Your task to perform on an android device: change text size in settings app Image 0: 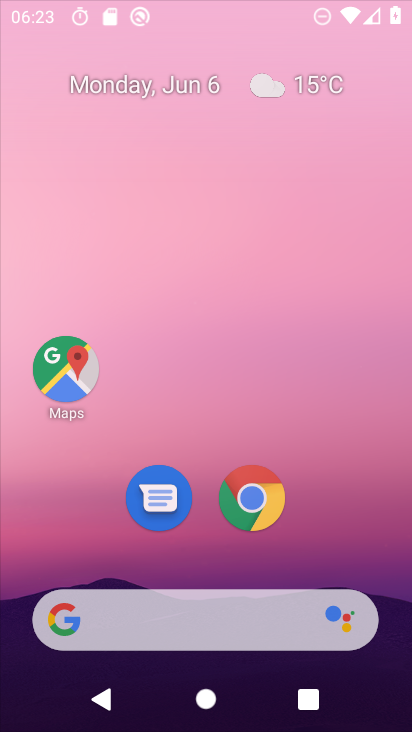
Step 0: drag from (190, 580) to (189, 2)
Your task to perform on an android device: change text size in settings app Image 1: 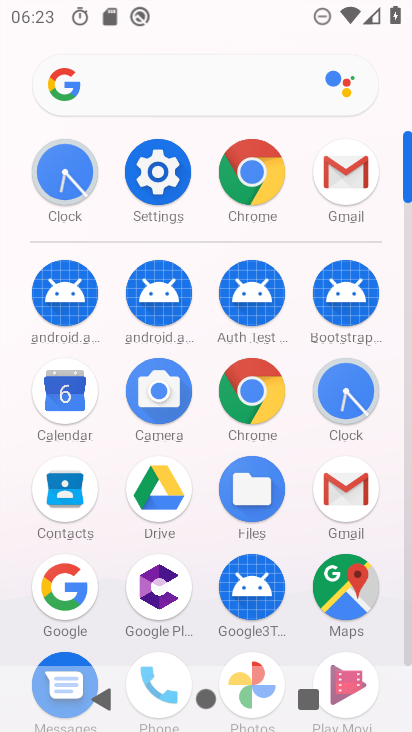
Step 1: click (161, 171)
Your task to perform on an android device: change text size in settings app Image 2: 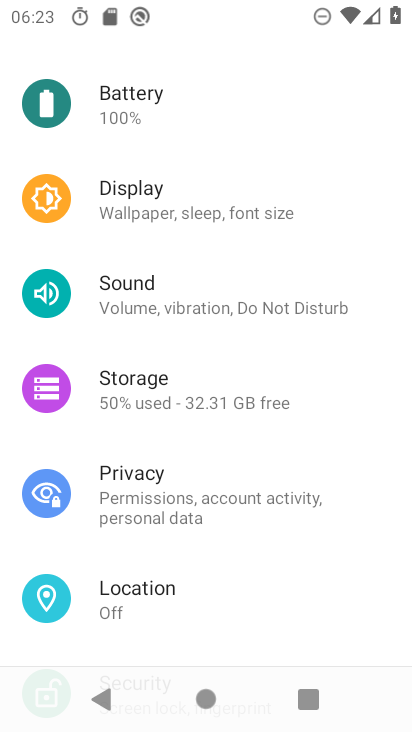
Step 2: drag from (216, 174) to (217, 720)
Your task to perform on an android device: change text size in settings app Image 3: 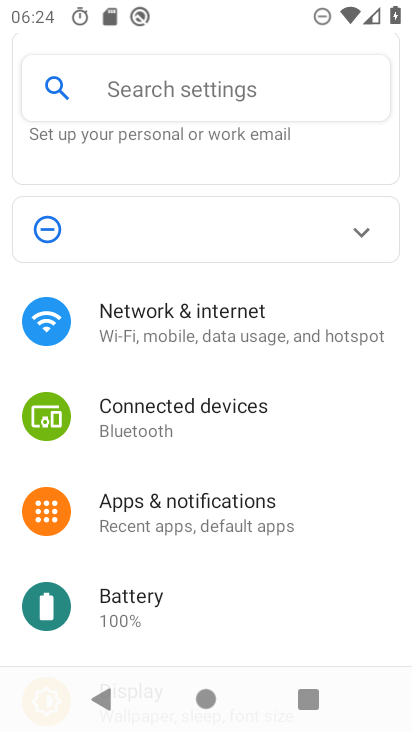
Step 3: drag from (173, 611) to (212, 236)
Your task to perform on an android device: change text size in settings app Image 4: 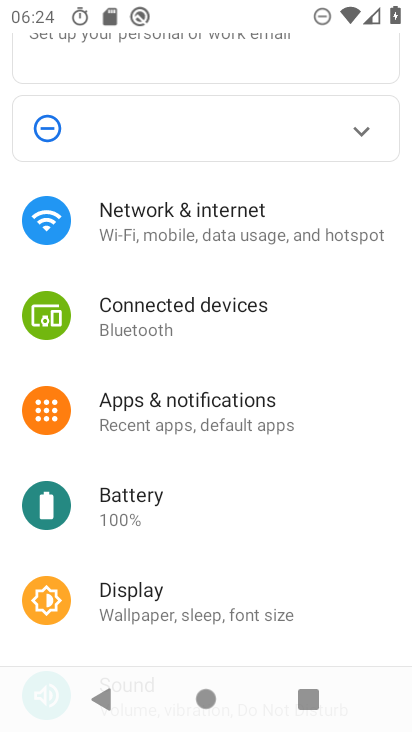
Step 4: click (127, 586)
Your task to perform on an android device: change text size in settings app Image 5: 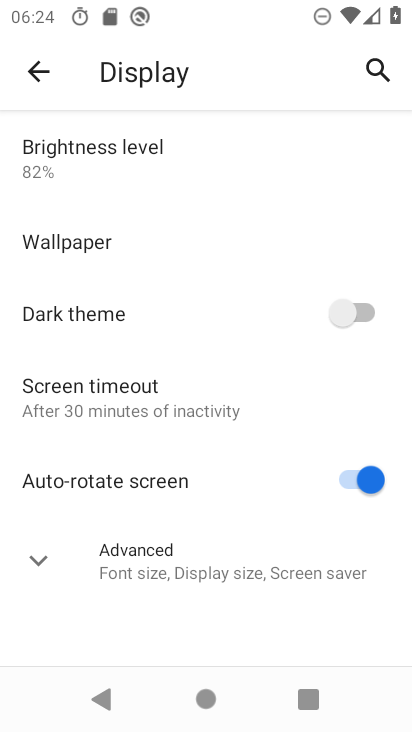
Step 5: click (151, 579)
Your task to perform on an android device: change text size in settings app Image 6: 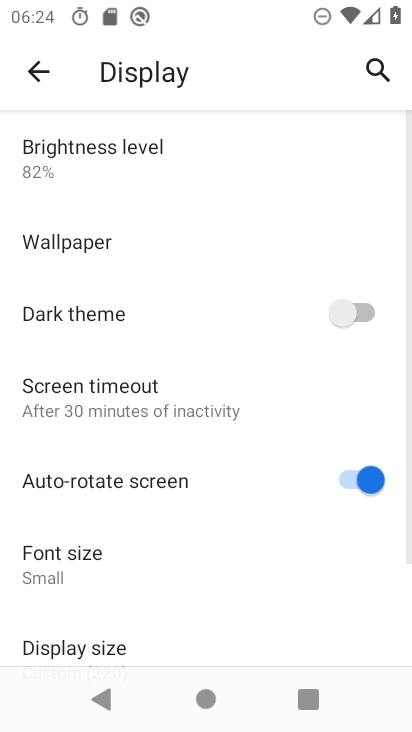
Step 6: click (33, 566)
Your task to perform on an android device: change text size in settings app Image 7: 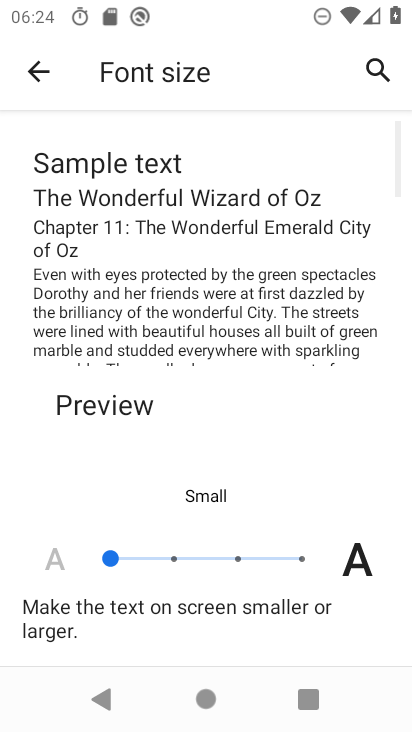
Step 7: click (183, 559)
Your task to perform on an android device: change text size in settings app Image 8: 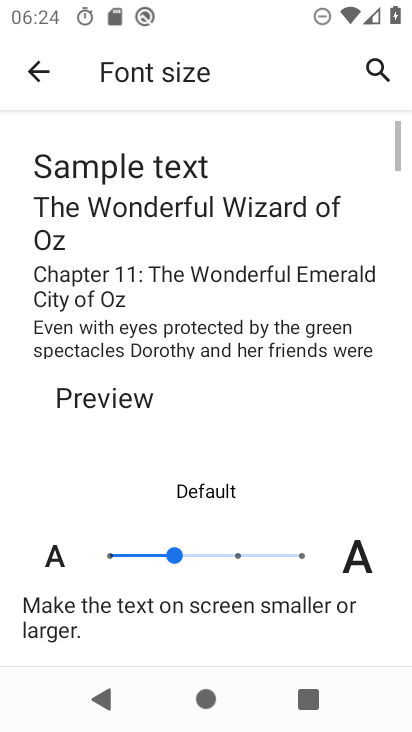
Step 8: task complete